Your task to perform on an android device: turn on translation in the chrome app Image 0: 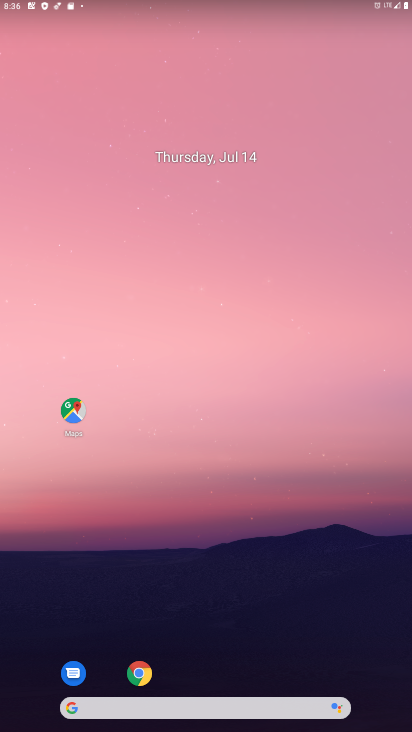
Step 0: click (139, 677)
Your task to perform on an android device: turn on translation in the chrome app Image 1: 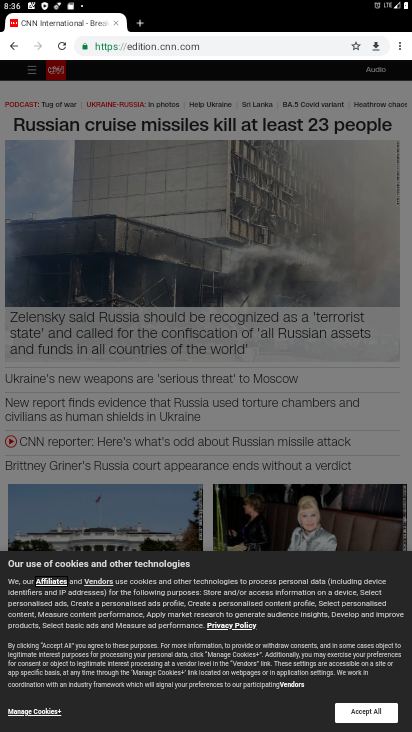
Step 1: click (398, 48)
Your task to perform on an android device: turn on translation in the chrome app Image 2: 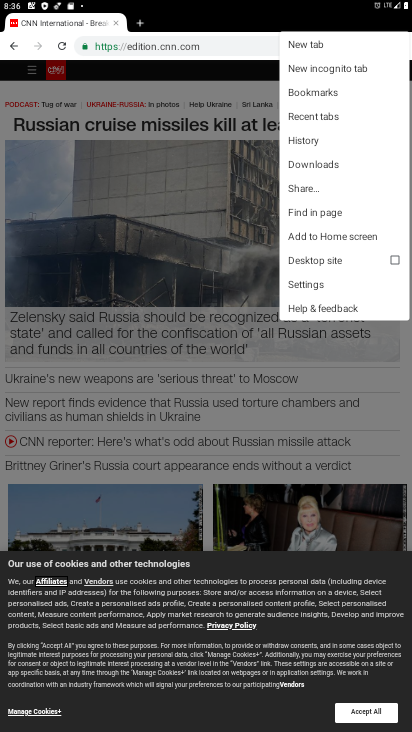
Step 2: click (312, 284)
Your task to perform on an android device: turn on translation in the chrome app Image 3: 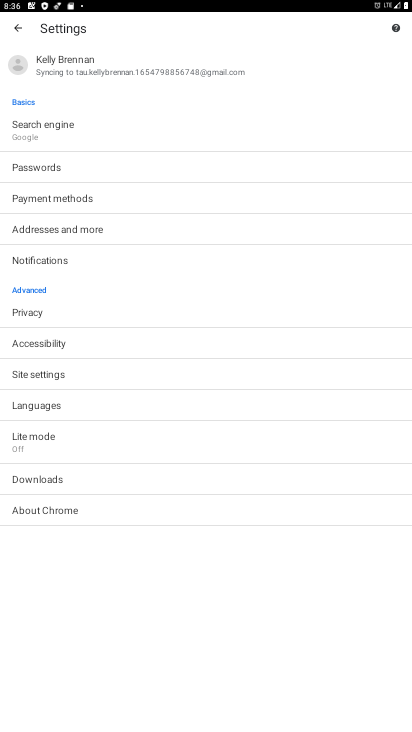
Step 3: click (51, 406)
Your task to perform on an android device: turn on translation in the chrome app Image 4: 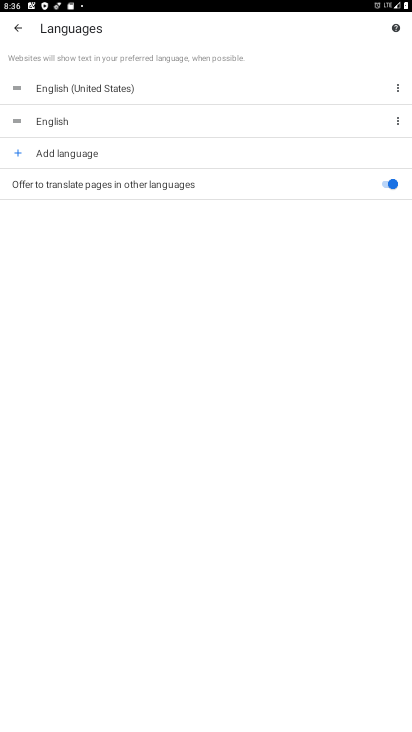
Step 4: task complete